Your task to perform on an android device: Go to Yahoo.com Image 0: 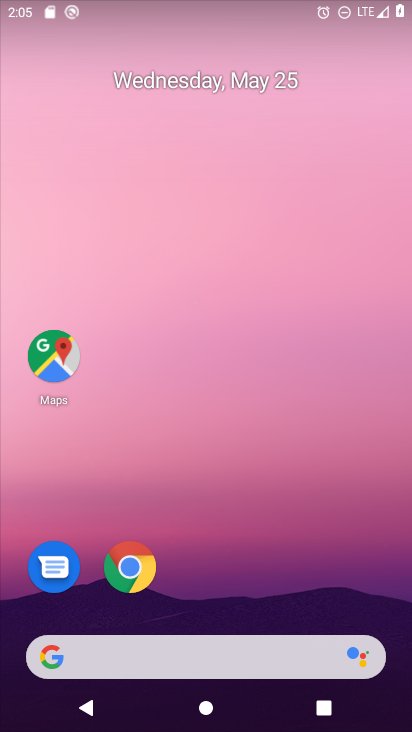
Step 0: click (135, 556)
Your task to perform on an android device: Go to Yahoo.com Image 1: 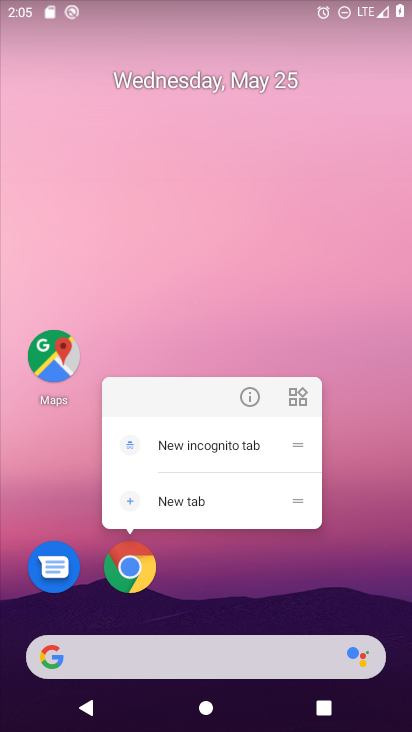
Step 1: click (133, 566)
Your task to perform on an android device: Go to Yahoo.com Image 2: 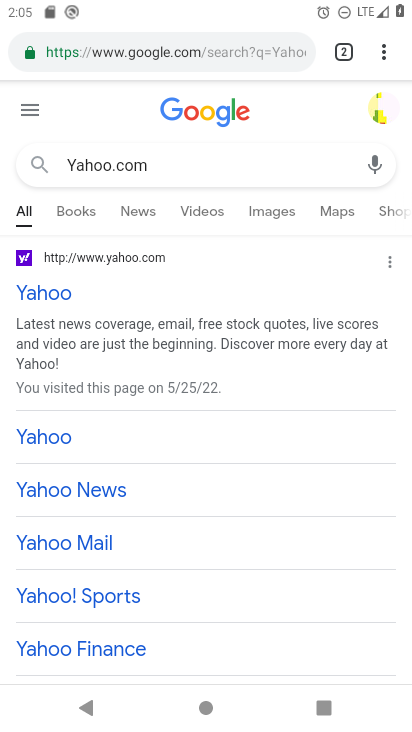
Step 2: task complete